Your task to perform on an android device: What is the news today? Image 0: 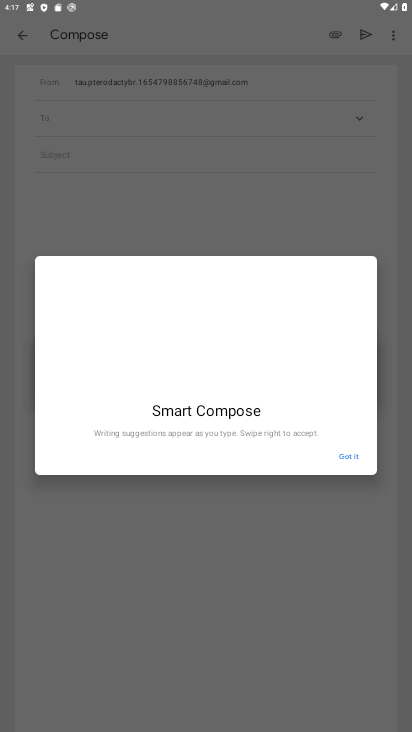
Step 0: press home button
Your task to perform on an android device: What is the news today? Image 1: 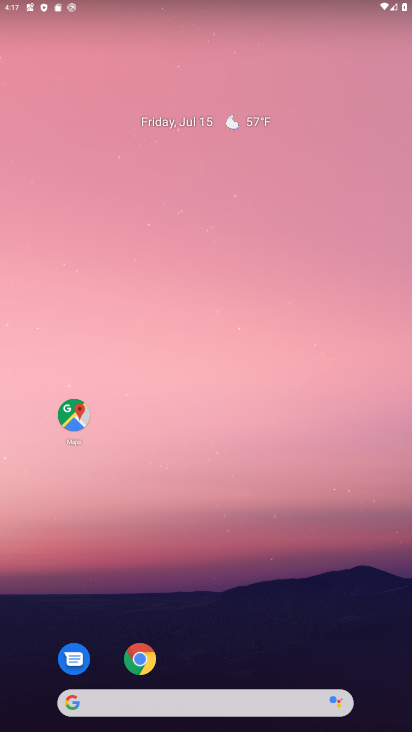
Step 1: drag from (300, 601) to (129, 48)
Your task to perform on an android device: What is the news today? Image 2: 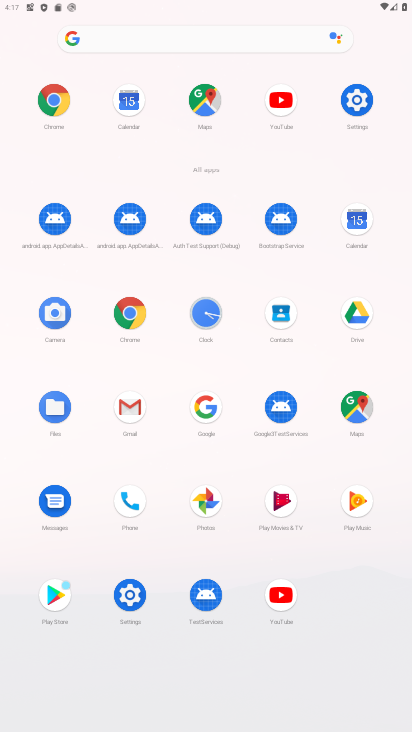
Step 2: click (54, 107)
Your task to perform on an android device: What is the news today? Image 3: 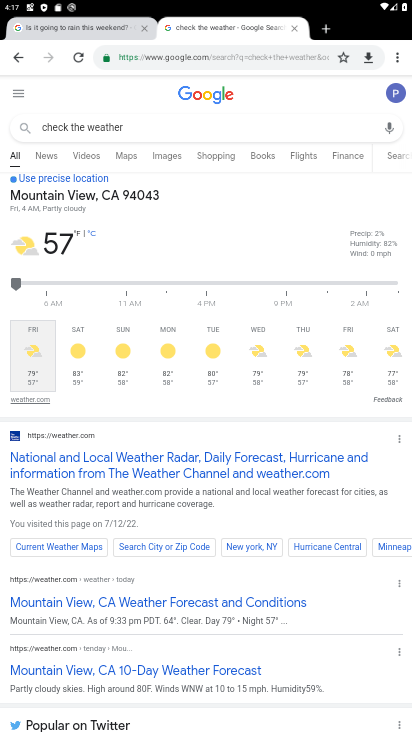
Step 3: click (142, 130)
Your task to perform on an android device: What is the news today? Image 4: 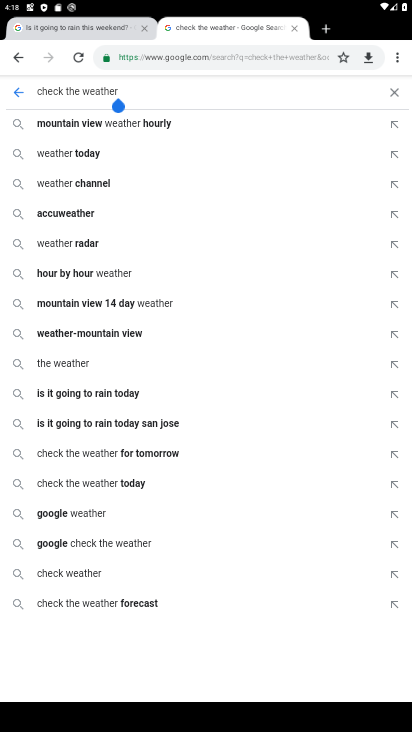
Step 4: click (398, 95)
Your task to perform on an android device: What is the news today? Image 5: 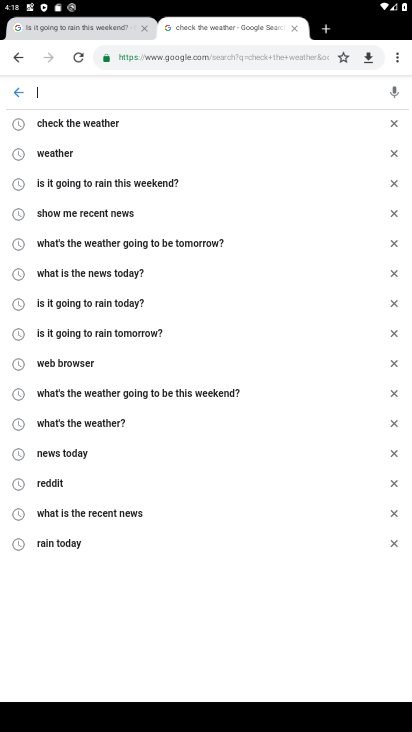
Step 5: click (115, 268)
Your task to perform on an android device: What is the news today? Image 6: 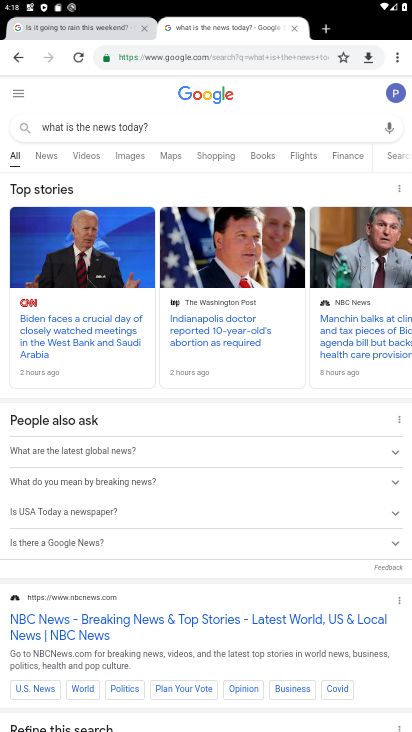
Step 6: task complete